Your task to perform on an android device: turn off airplane mode Image 0: 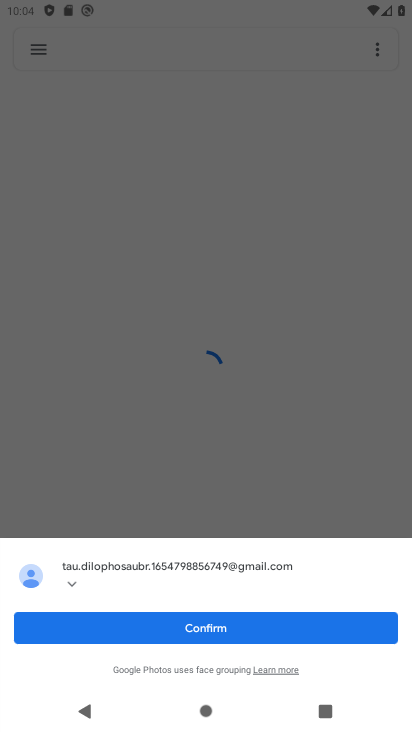
Step 0: press home button
Your task to perform on an android device: turn off airplane mode Image 1: 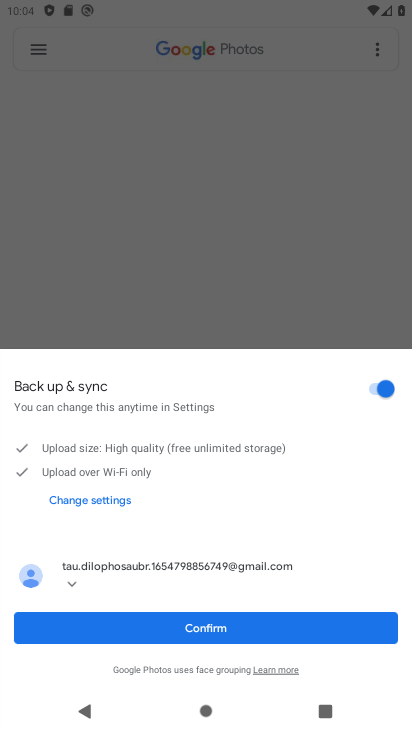
Step 1: task complete